Your task to perform on an android device: Go to ESPN.com Image 0: 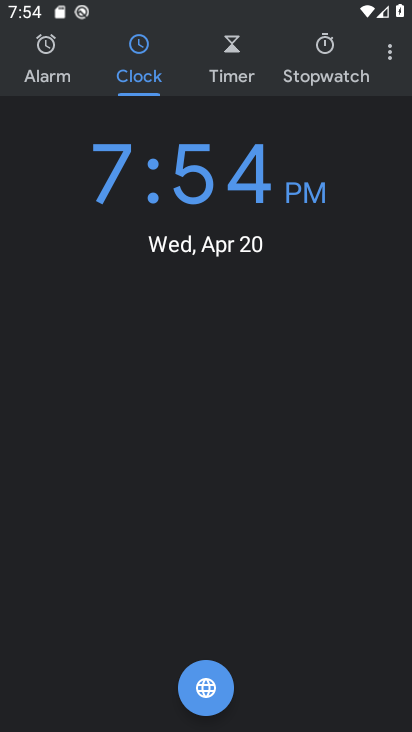
Step 0: press home button
Your task to perform on an android device: Go to ESPN.com Image 1: 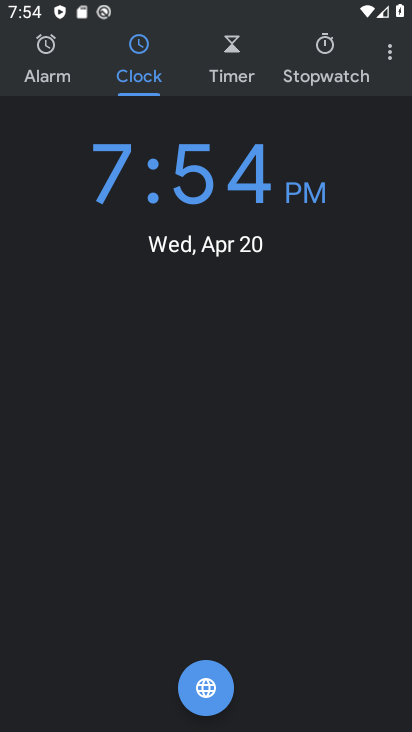
Step 1: press home button
Your task to perform on an android device: Go to ESPN.com Image 2: 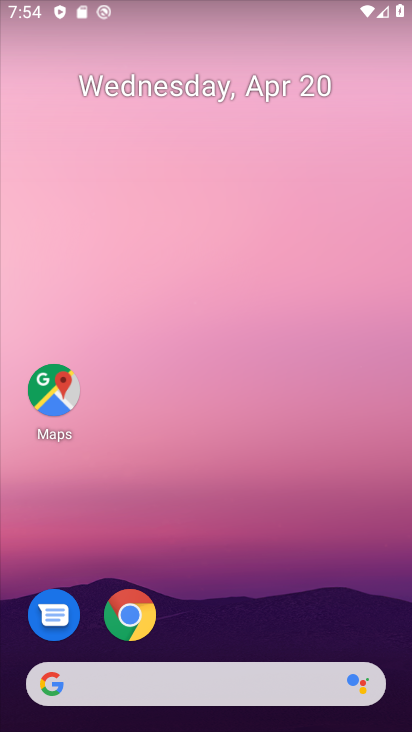
Step 2: click (130, 618)
Your task to perform on an android device: Go to ESPN.com Image 3: 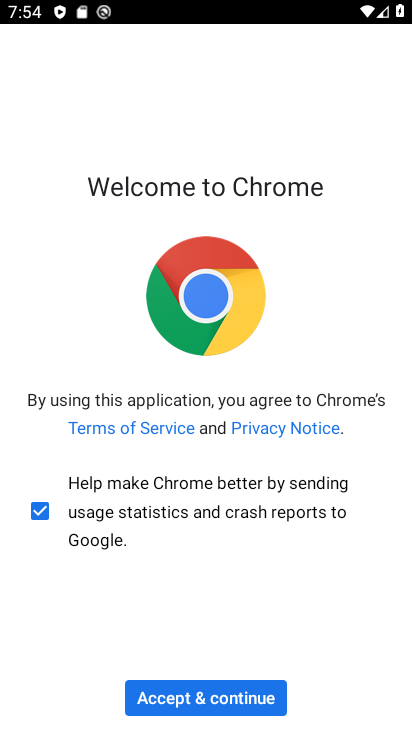
Step 3: click (211, 700)
Your task to perform on an android device: Go to ESPN.com Image 4: 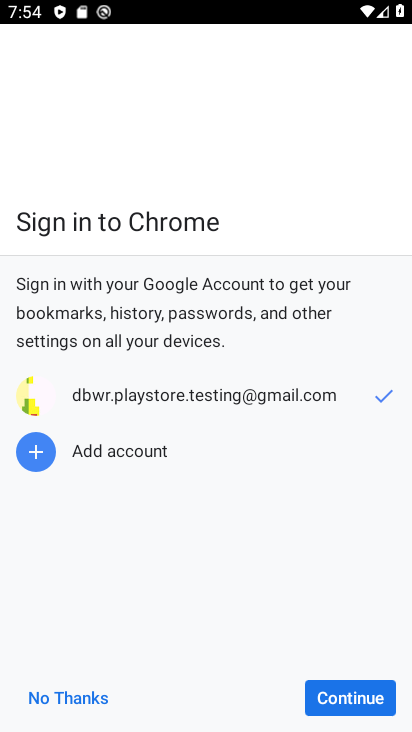
Step 4: click (382, 703)
Your task to perform on an android device: Go to ESPN.com Image 5: 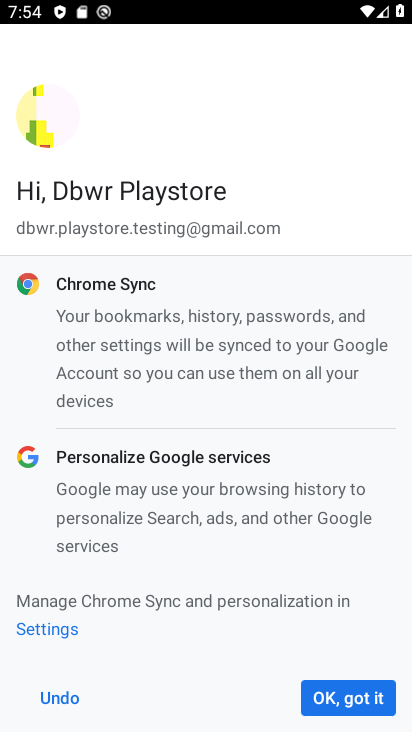
Step 5: click (382, 703)
Your task to perform on an android device: Go to ESPN.com Image 6: 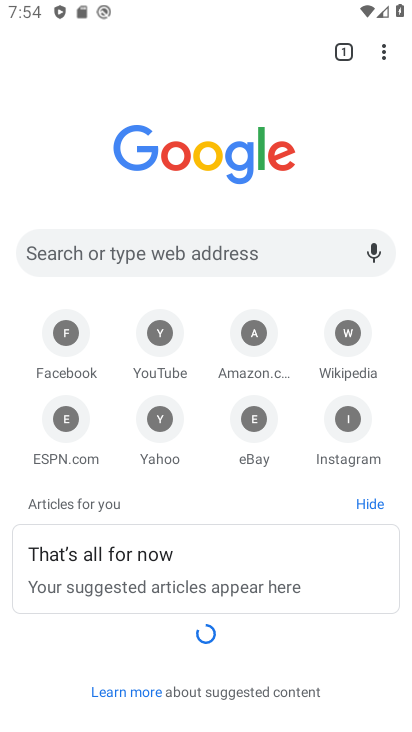
Step 6: click (256, 247)
Your task to perform on an android device: Go to ESPN.com Image 7: 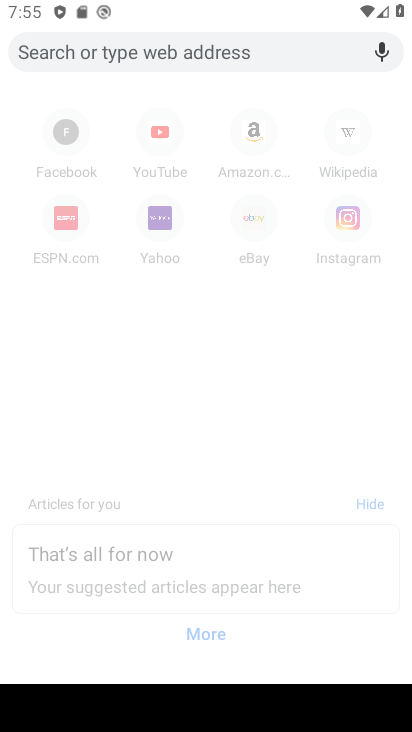
Step 7: type "ESPN.com"
Your task to perform on an android device: Go to ESPN.com Image 8: 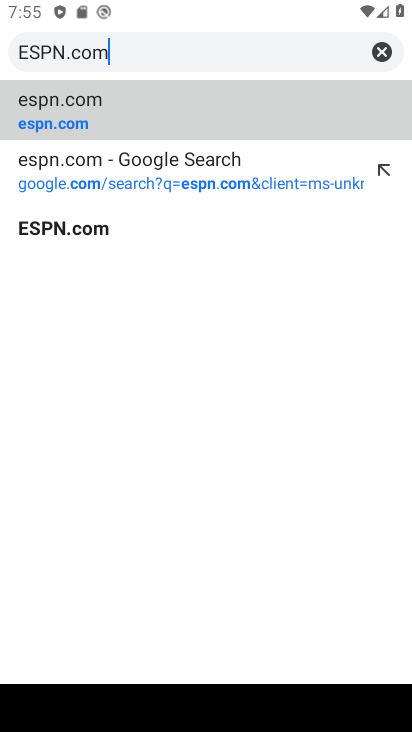
Step 8: click (191, 178)
Your task to perform on an android device: Go to ESPN.com Image 9: 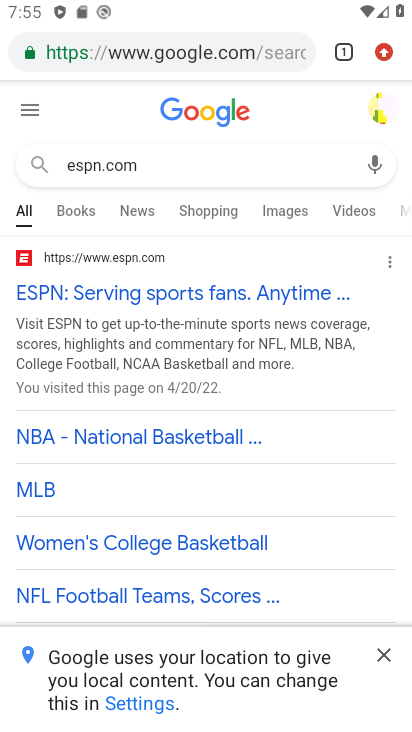
Step 9: task complete